Your task to perform on an android device: show emergency info Image 0: 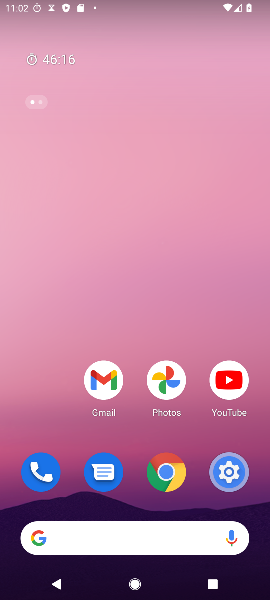
Step 0: click (239, 470)
Your task to perform on an android device: show emergency info Image 1: 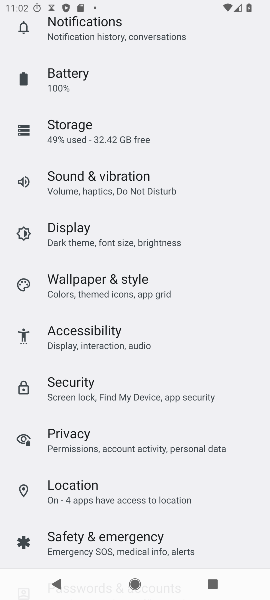
Step 1: click (175, 544)
Your task to perform on an android device: show emergency info Image 2: 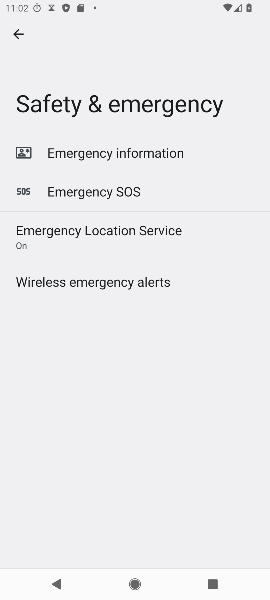
Step 2: click (101, 155)
Your task to perform on an android device: show emergency info Image 3: 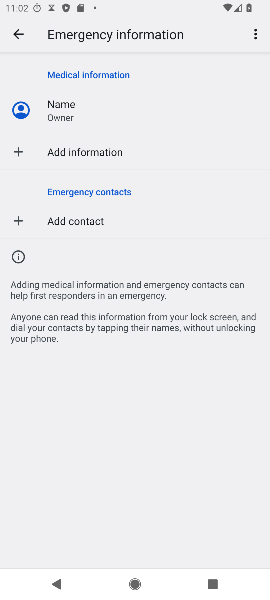
Step 3: task complete